Your task to perform on an android device: toggle airplane mode Image 0: 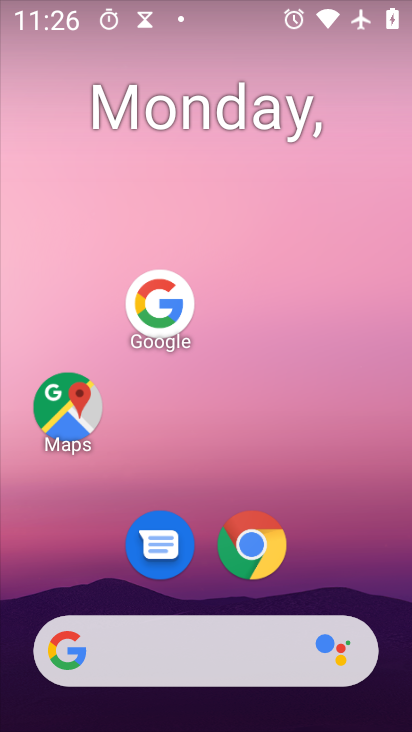
Step 0: drag from (149, 660) to (251, 159)
Your task to perform on an android device: toggle airplane mode Image 1: 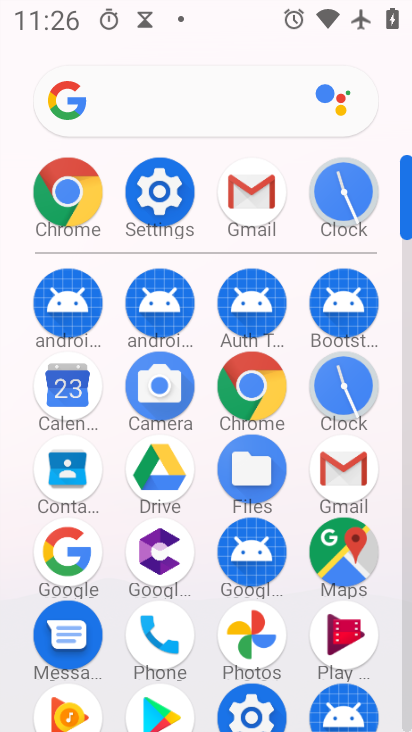
Step 1: click (152, 206)
Your task to perform on an android device: toggle airplane mode Image 2: 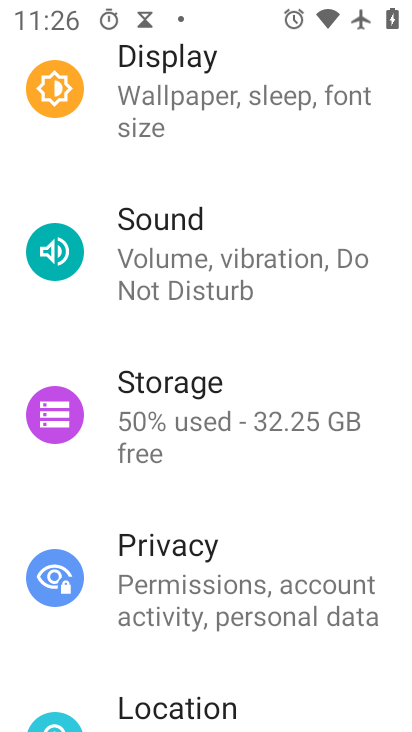
Step 2: drag from (246, 474) to (197, 587)
Your task to perform on an android device: toggle airplane mode Image 3: 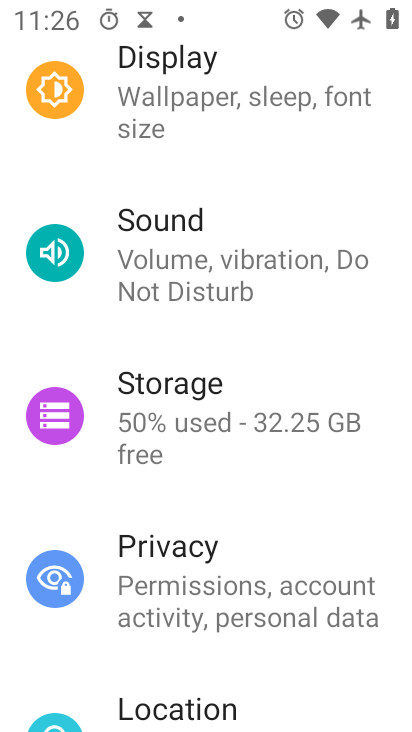
Step 3: drag from (262, 54) to (247, 548)
Your task to perform on an android device: toggle airplane mode Image 4: 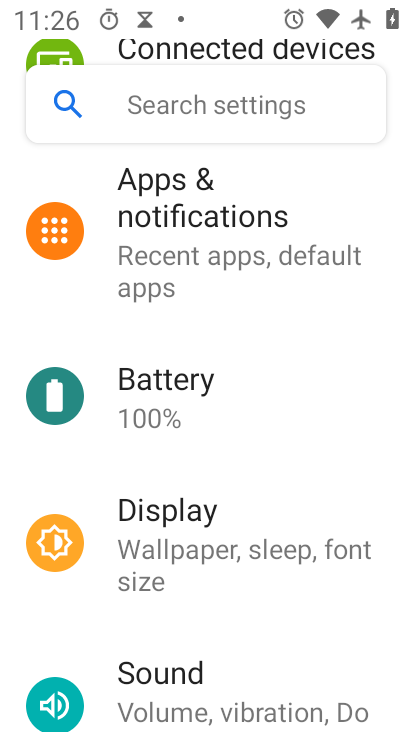
Step 4: drag from (302, 202) to (287, 631)
Your task to perform on an android device: toggle airplane mode Image 5: 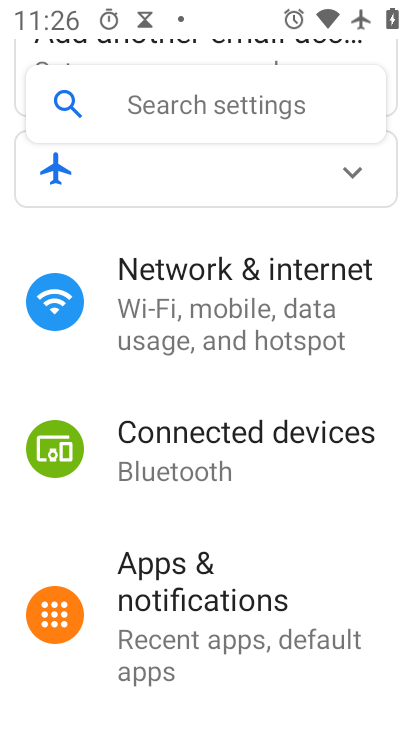
Step 5: click (210, 281)
Your task to perform on an android device: toggle airplane mode Image 6: 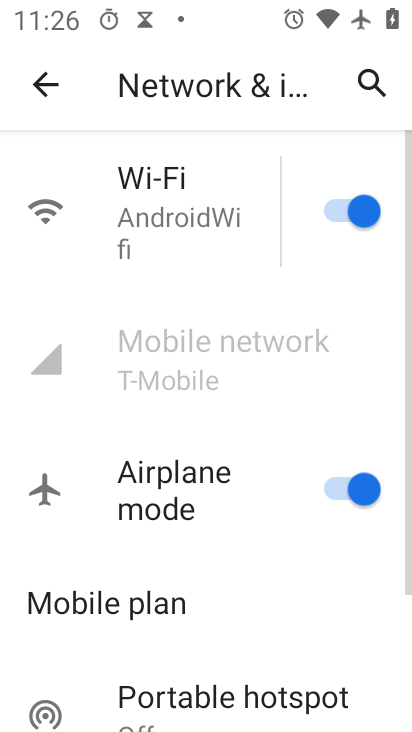
Step 6: click (341, 490)
Your task to perform on an android device: toggle airplane mode Image 7: 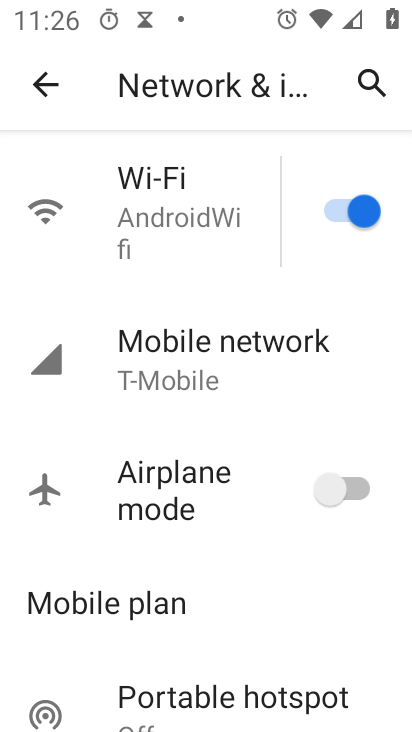
Step 7: task complete